Your task to perform on an android device: Go to internet settings Image 0: 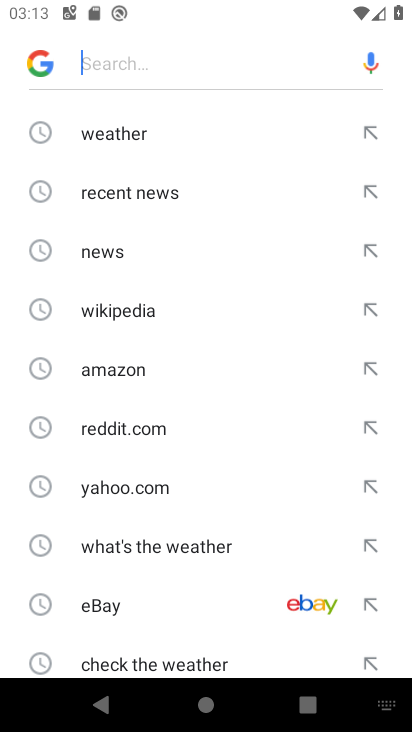
Step 0: press home button
Your task to perform on an android device: Go to internet settings Image 1: 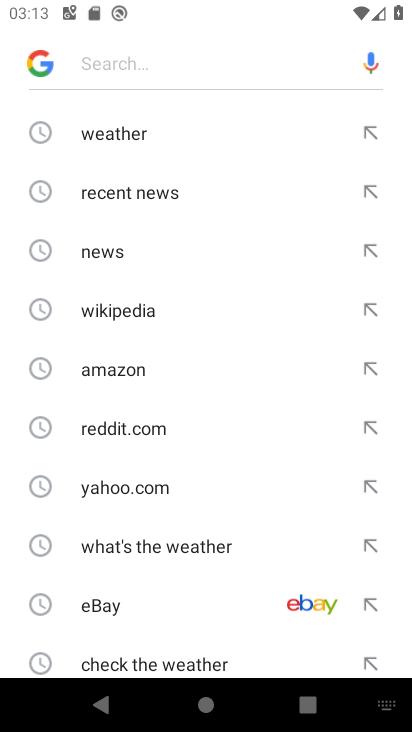
Step 1: press home button
Your task to perform on an android device: Go to internet settings Image 2: 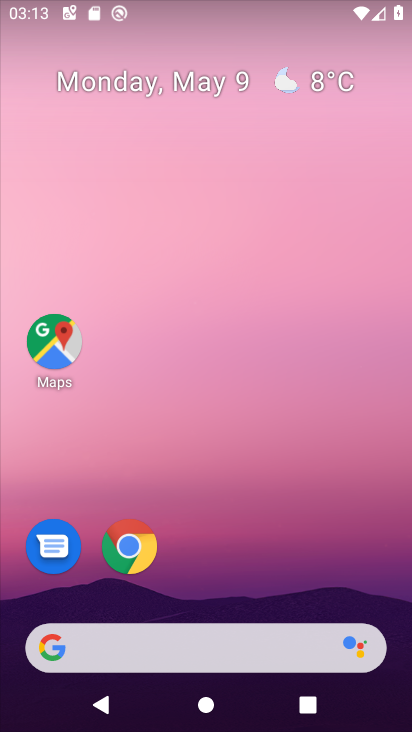
Step 2: drag from (230, 517) to (192, 29)
Your task to perform on an android device: Go to internet settings Image 3: 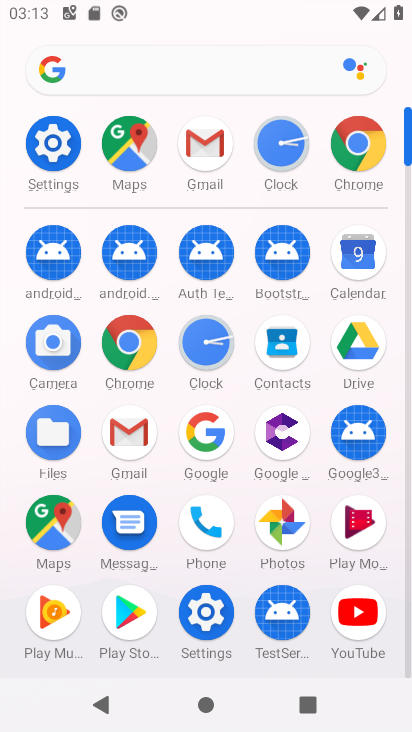
Step 3: click (57, 147)
Your task to perform on an android device: Go to internet settings Image 4: 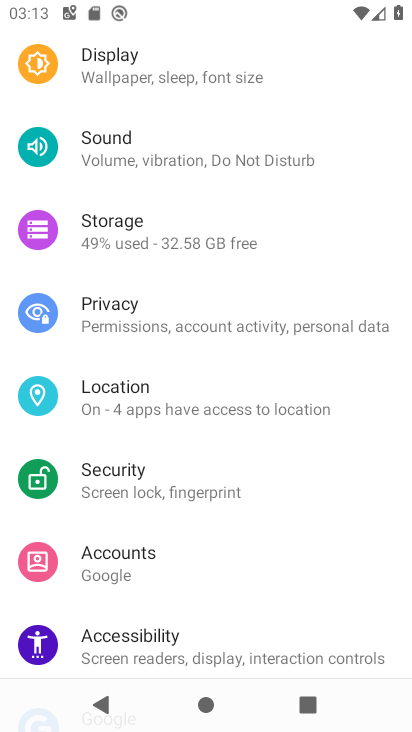
Step 4: drag from (202, 123) to (238, 637)
Your task to perform on an android device: Go to internet settings Image 5: 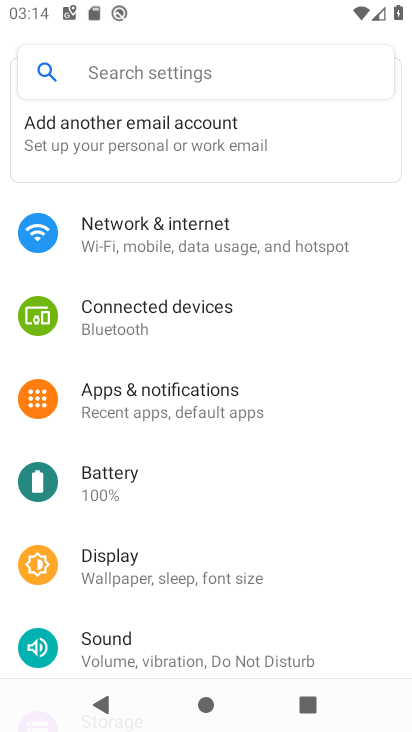
Step 5: click (226, 233)
Your task to perform on an android device: Go to internet settings Image 6: 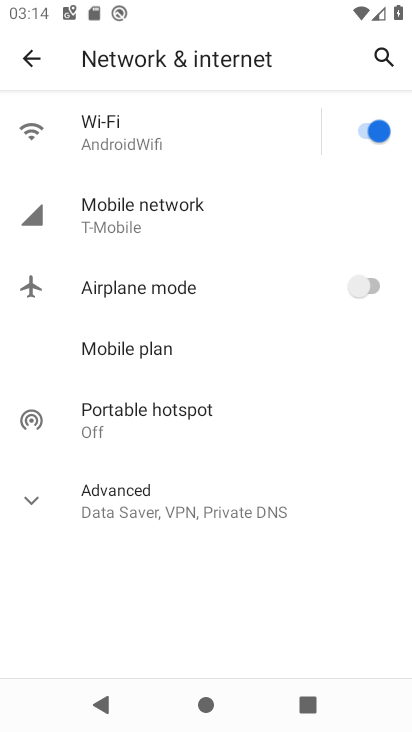
Step 6: task complete